Your task to perform on an android device: Open Google Maps Image 0: 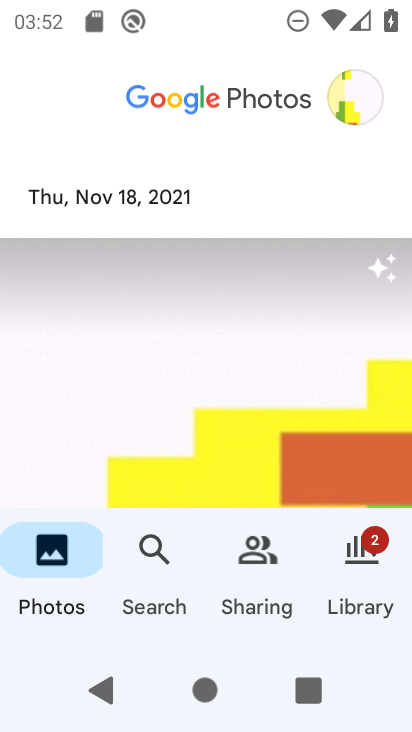
Step 0: press home button
Your task to perform on an android device: Open Google Maps Image 1: 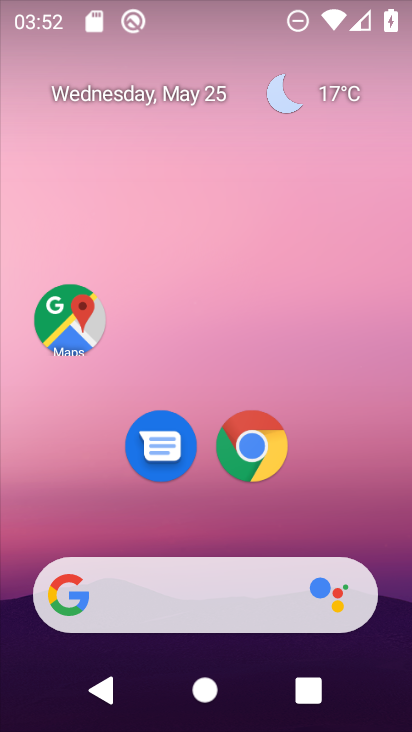
Step 1: click (85, 304)
Your task to perform on an android device: Open Google Maps Image 2: 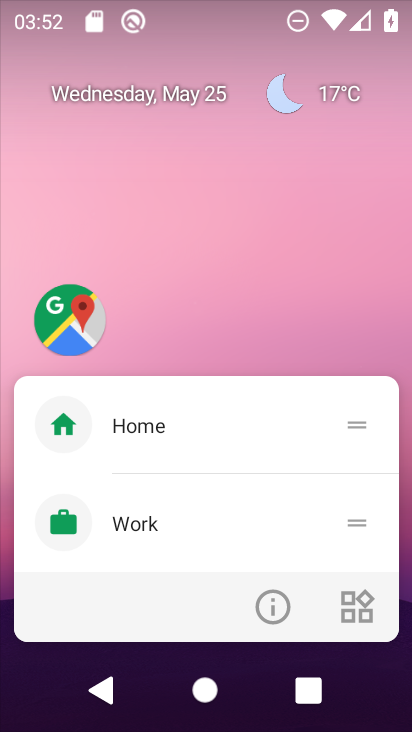
Step 2: click (88, 305)
Your task to perform on an android device: Open Google Maps Image 3: 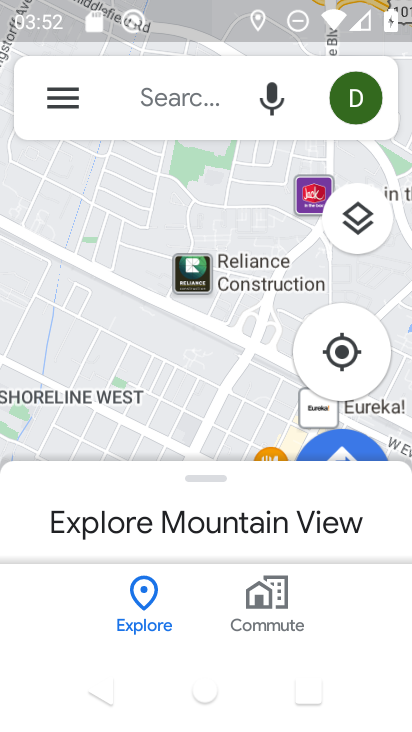
Step 3: task complete